Your task to perform on an android device: Open the Play Movies app and select the watchlist tab. Image 0: 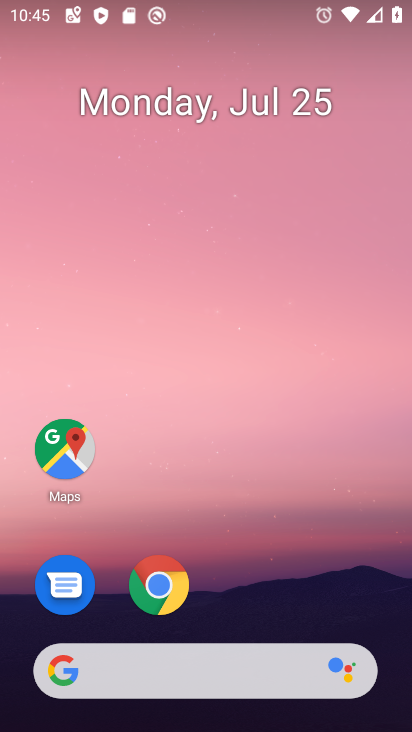
Step 0: drag from (240, 640) to (182, 94)
Your task to perform on an android device: Open the Play Movies app and select the watchlist tab. Image 1: 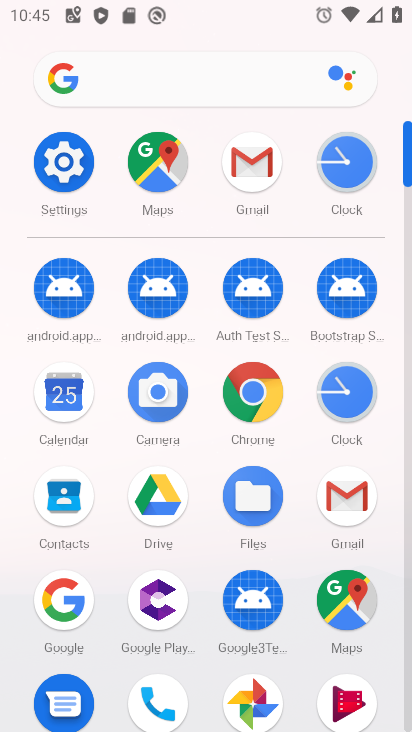
Step 1: click (348, 694)
Your task to perform on an android device: Open the Play Movies app and select the watchlist tab. Image 2: 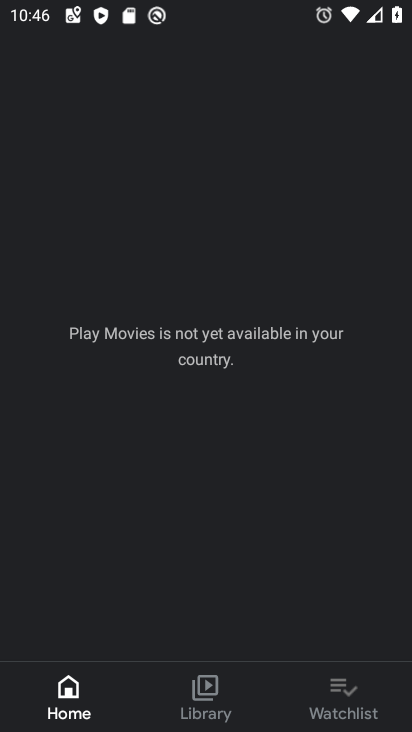
Step 2: click (299, 693)
Your task to perform on an android device: Open the Play Movies app and select the watchlist tab. Image 3: 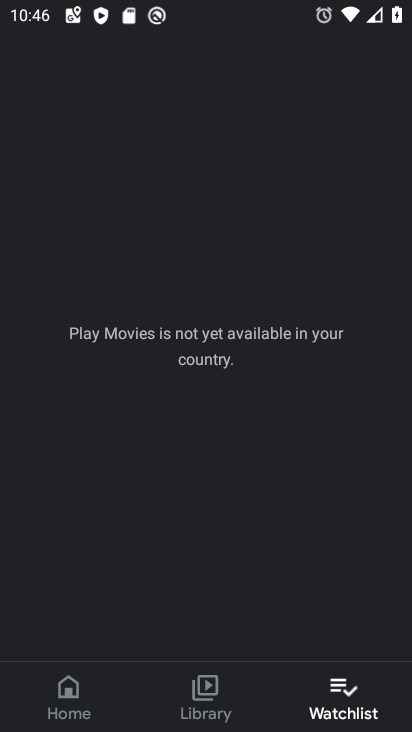
Step 3: task complete